Your task to perform on an android device: Go to location settings Image 0: 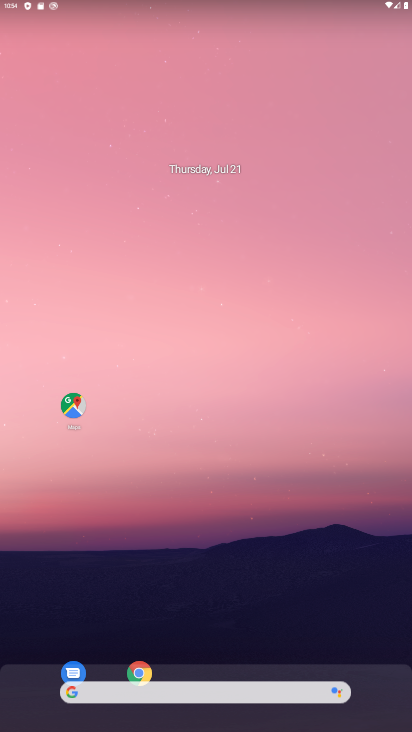
Step 0: drag from (292, 637) to (251, 46)
Your task to perform on an android device: Go to location settings Image 1: 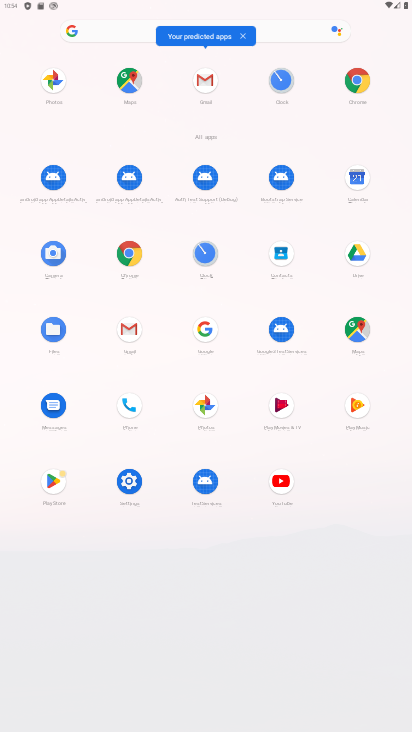
Step 1: click (127, 484)
Your task to perform on an android device: Go to location settings Image 2: 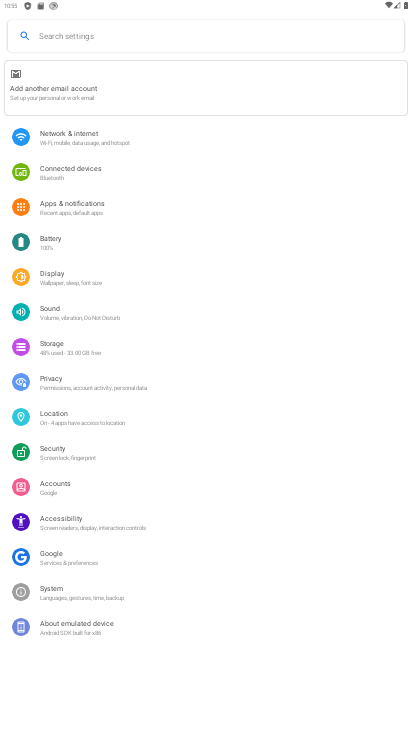
Step 2: click (90, 421)
Your task to perform on an android device: Go to location settings Image 3: 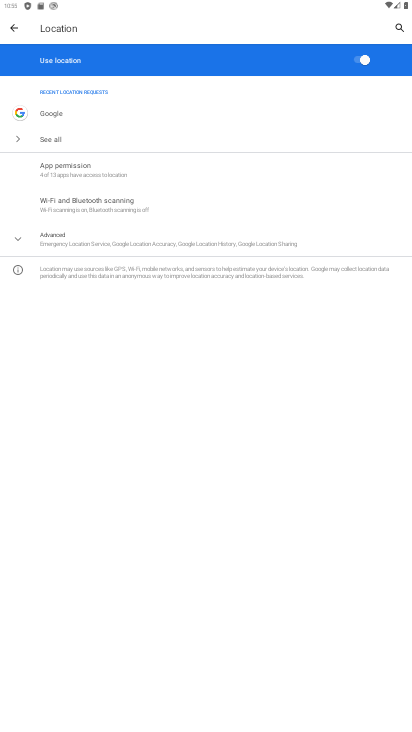
Step 3: task complete